Your task to perform on an android device: Go to battery settings Image 0: 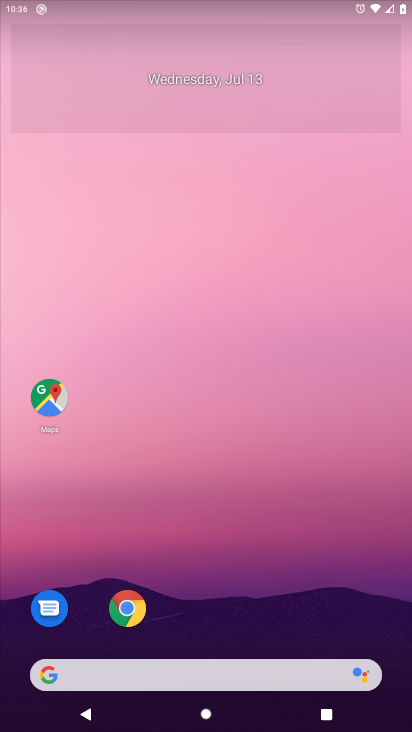
Step 0: drag from (55, 636) to (171, 57)
Your task to perform on an android device: Go to battery settings Image 1: 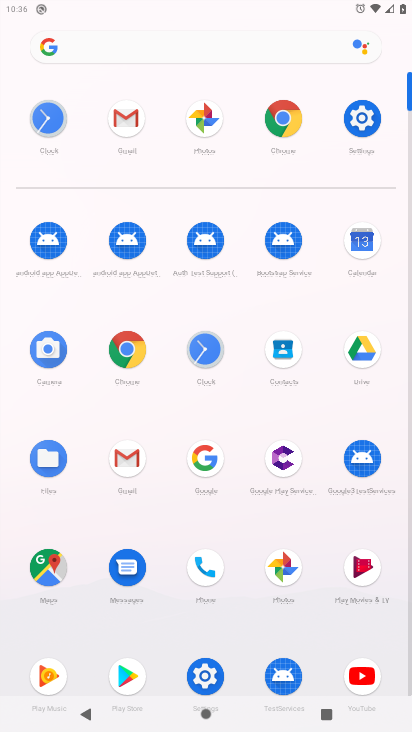
Step 1: drag from (37, 676) to (211, 682)
Your task to perform on an android device: Go to battery settings Image 2: 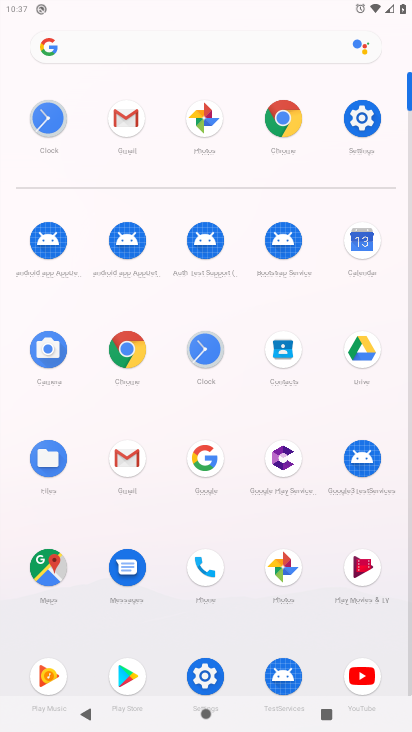
Step 2: click (201, 686)
Your task to perform on an android device: Go to battery settings Image 3: 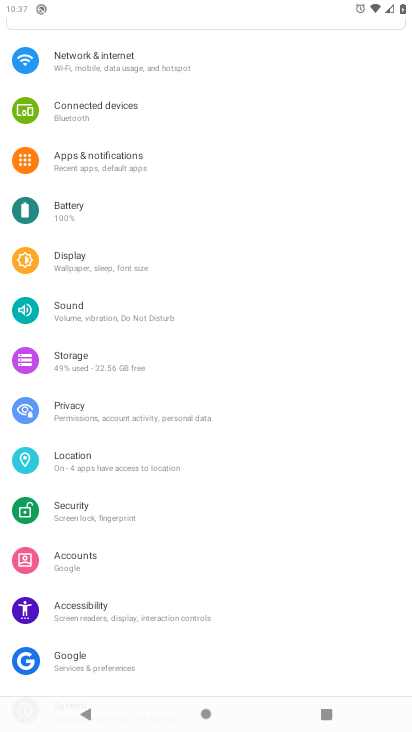
Step 3: click (96, 215)
Your task to perform on an android device: Go to battery settings Image 4: 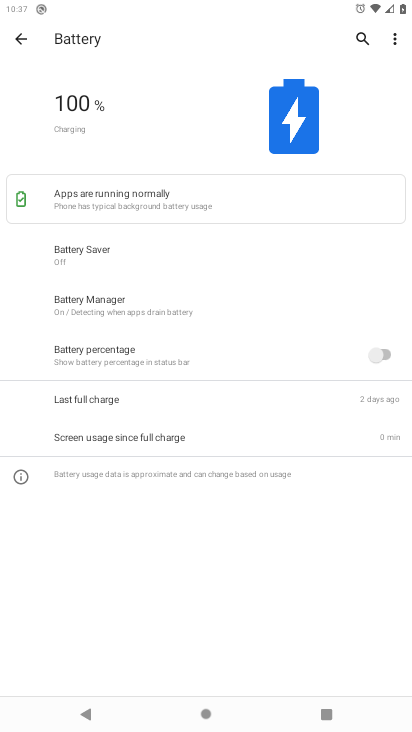
Step 4: task complete